Your task to perform on an android device: set the stopwatch Image 0: 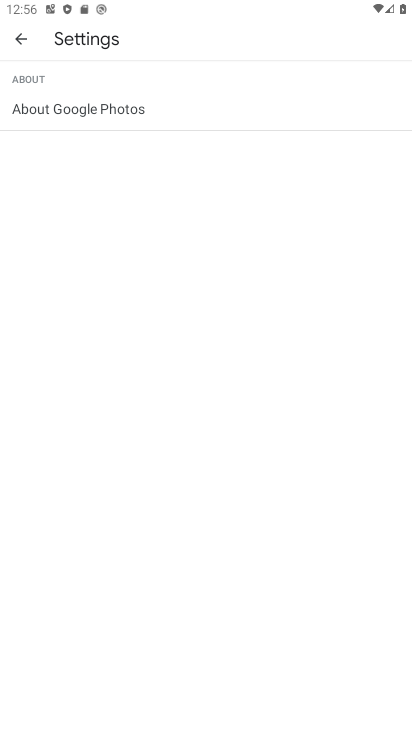
Step 0: press home button
Your task to perform on an android device: set the stopwatch Image 1: 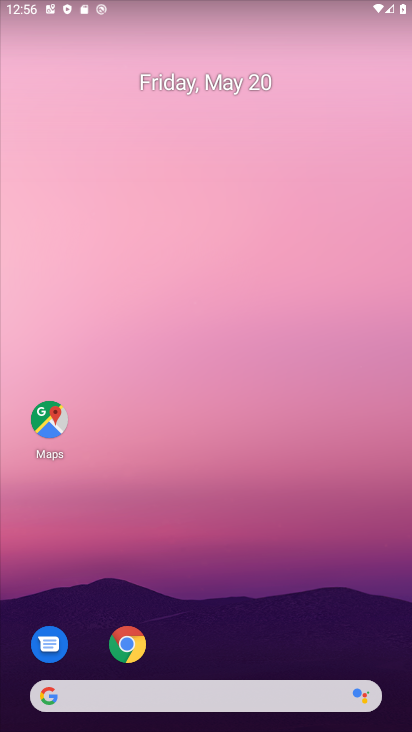
Step 1: drag from (291, 557) to (300, 55)
Your task to perform on an android device: set the stopwatch Image 2: 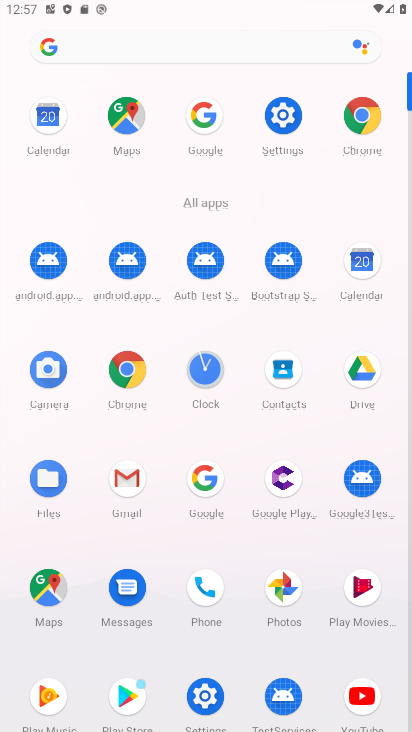
Step 2: click (207, 378)
Your task to perform on an android device: set the stopwatch Image 3: 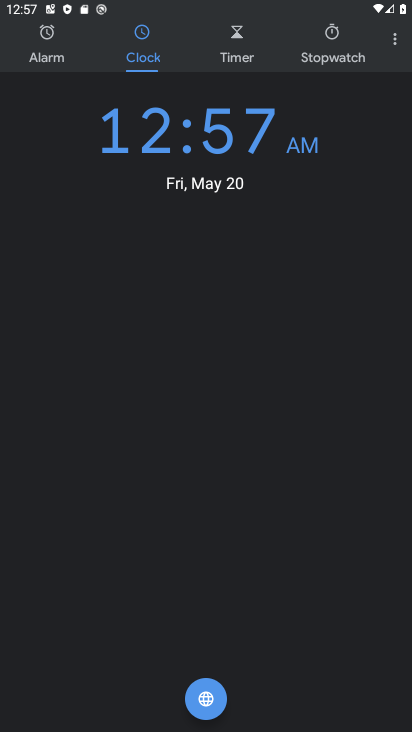
Step 3: click (339, 58)
Your task to perform on an android device: set the stopwatch Image 4: 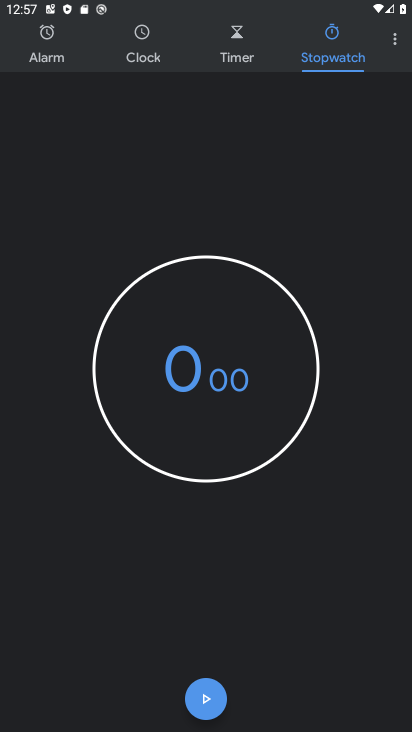
Step 4: click (214, 702)
Your task to perform on an android device: set the stopwatch Image 5: 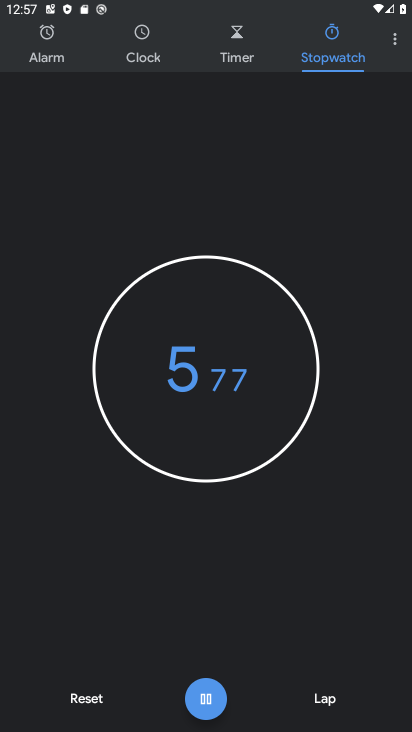
Step 5: task complete